Your task to perform on an android device: Open settings Image 0: 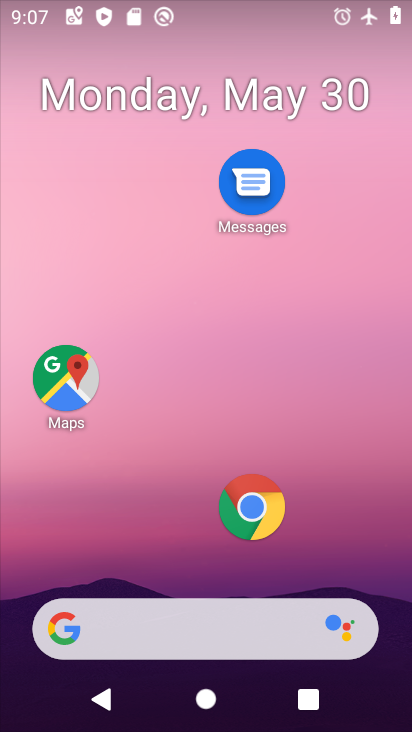
Step 0: drag from (199, 570) to (253, 2)
Your task to perform on an android device: Open settings Image 1: 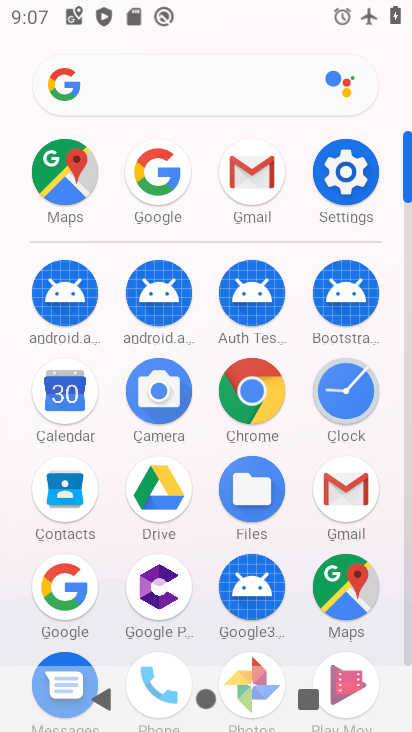
Step 1: click (336, 156)
Your task to perform on an android device: Open settings Image 2: 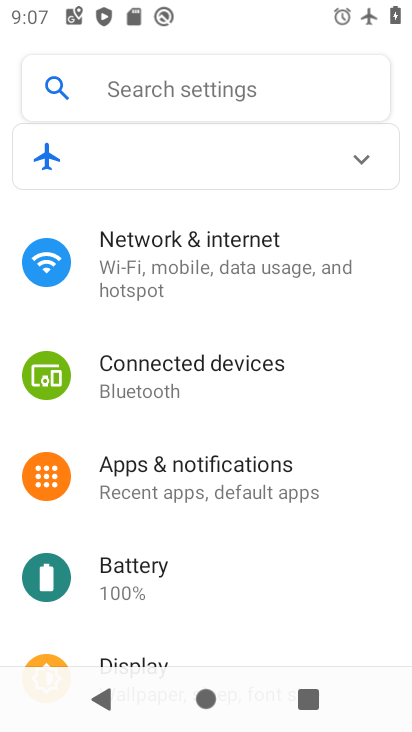
Step 2: task complete